Your task to perform on an android device: toggle javascript in the chrome app Image 0: 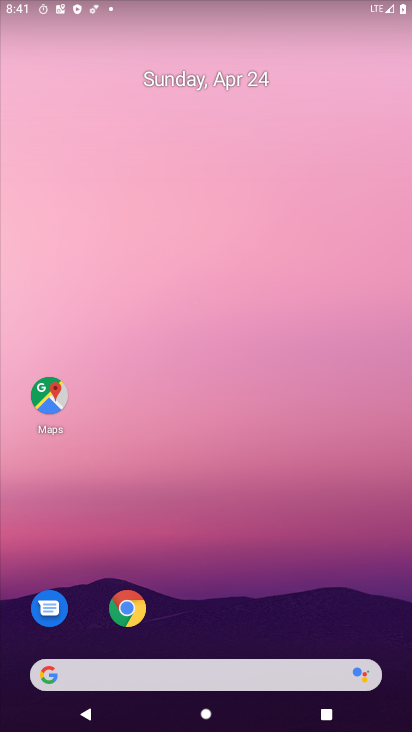
Step 0: click (126, 605)
Your task to perform on an android device: toggle javascript in the chrome app Image 1: 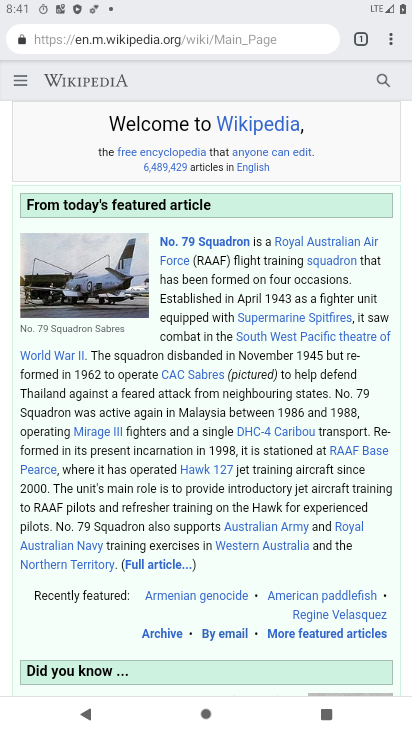
Step 1: click (391, 32)
Your task to perform on an android device: toggle javascript in the chrome app Image 2: 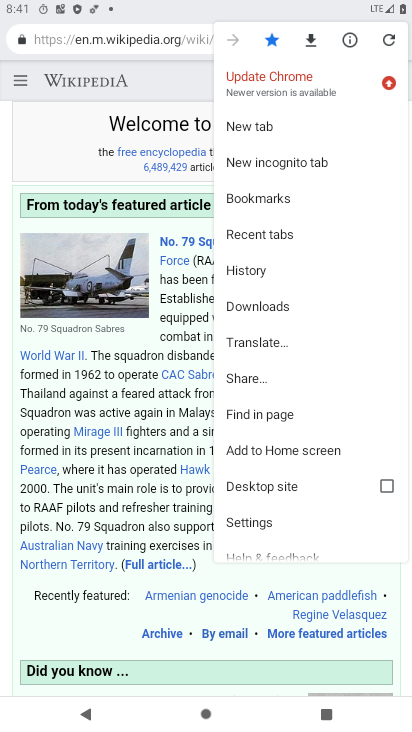
Step 2: click (277, 517)
Your task to perform on an android device: toggle javascript in the chrome app Image 3: 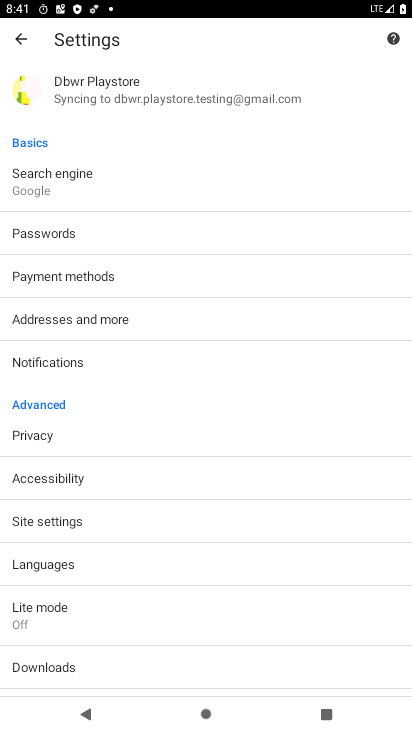
Step 3: click (277, 517)
Your task to perform on an android device: toggle javascript in the chrome app Image 4: 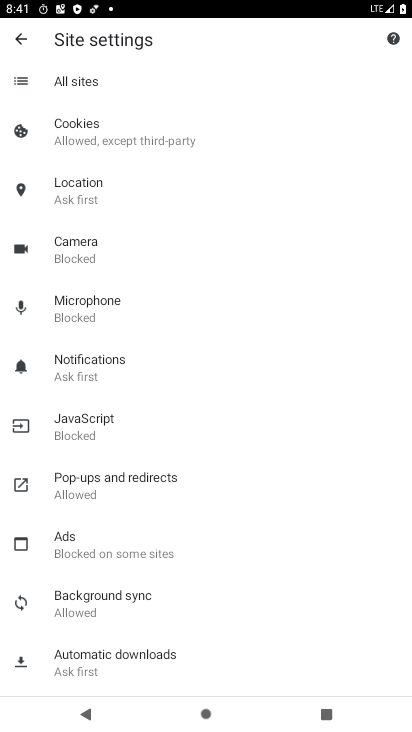
Step 4: click (183, 422)
Your task to perform on an android device: toggle javascript in the chrome app Image 5: 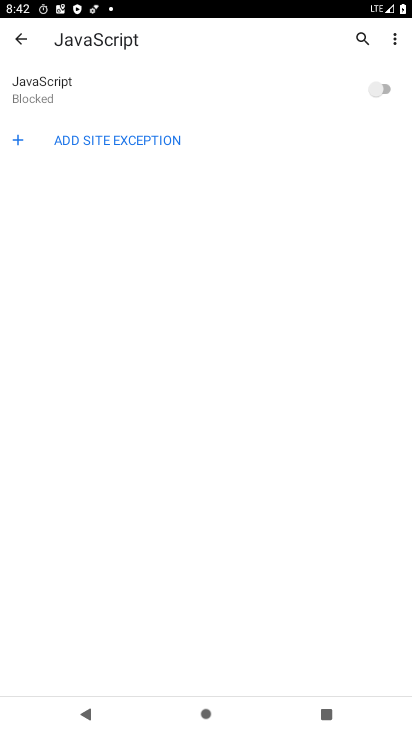
Step 5: click (383, 83)
Your task to perform on an android device: toggle javascript in the chrome app Image 6: 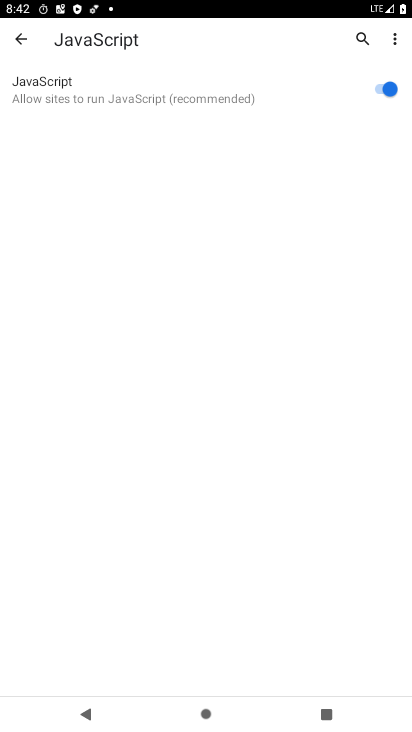
Step 6: task complete